Your task to perform on an android device: Open display settings Image 0: 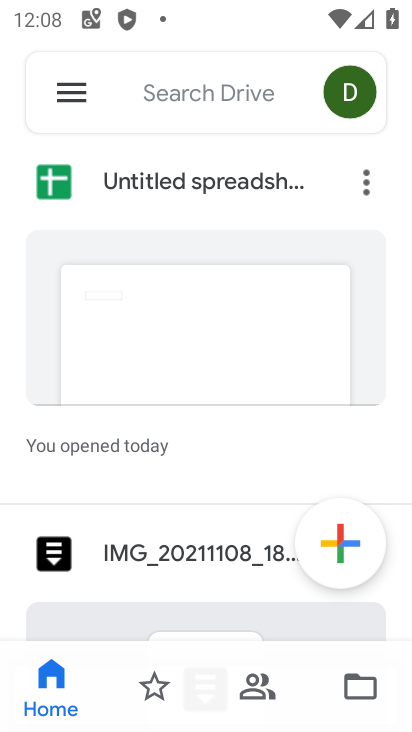
Step 0: press home button
Your task to perform on an android device: Open display settings Image 1: 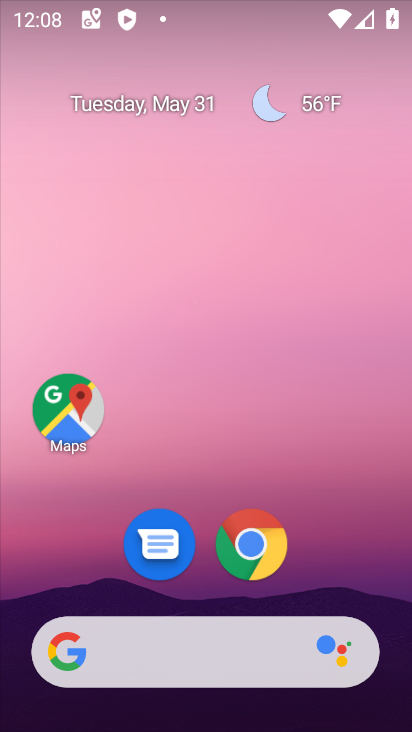
Step 1: drag from (338, 516) to (159, 45)
Your task to perform on an android device: Open display settings Image 2: 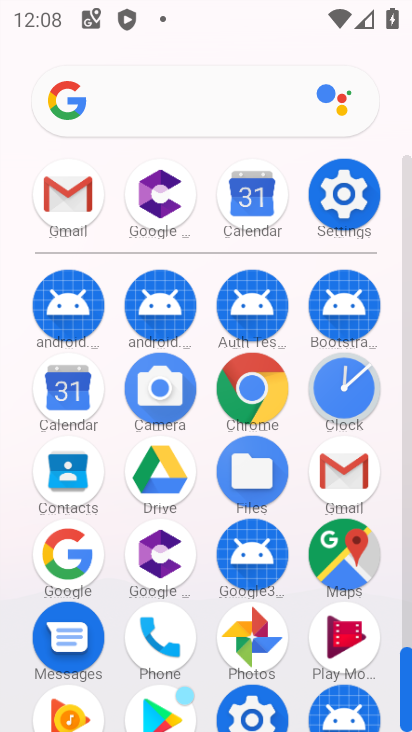
Step 2: click (346, 196)
Your task to perform on an android device: Open display settings Image 3: 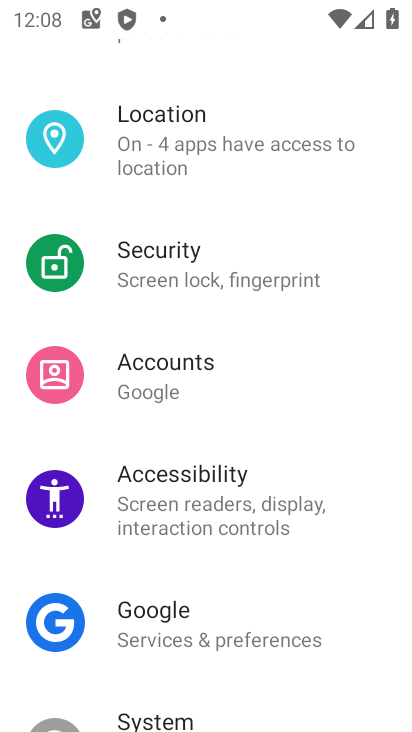
Step 3: drag from (228, 207) to (273, 538)
Your task to perform on an android device: Open display settings Image 4: 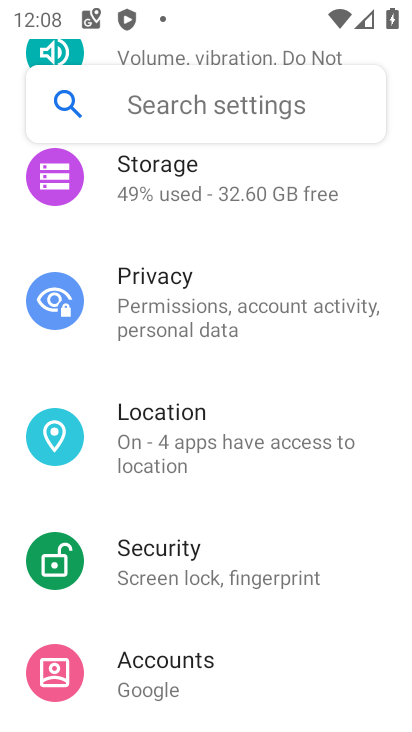
Step 4: drag from (274, 261) to (259, 717)
Your task to perform on an android device: Open display settings Image 5: 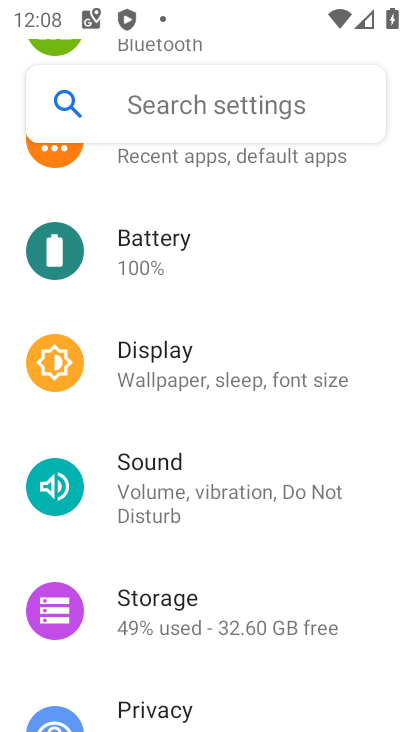
Step 5: click (152, 361)
Your task to perform on an android device: Open display settings Image 6: 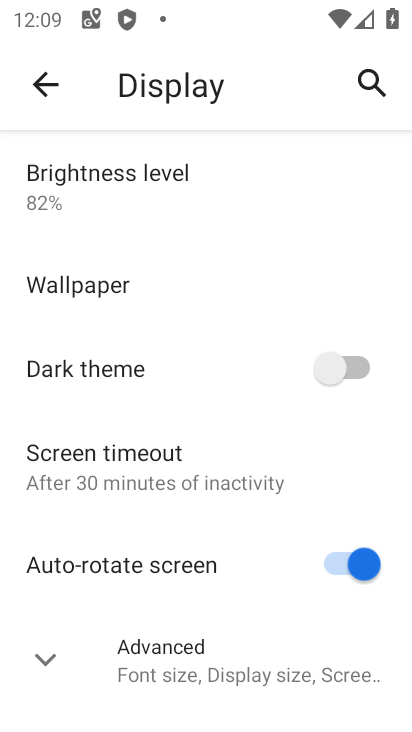
Step 6: task complete